Your task to perform on an android device: open sync settings in chrome Image 0: 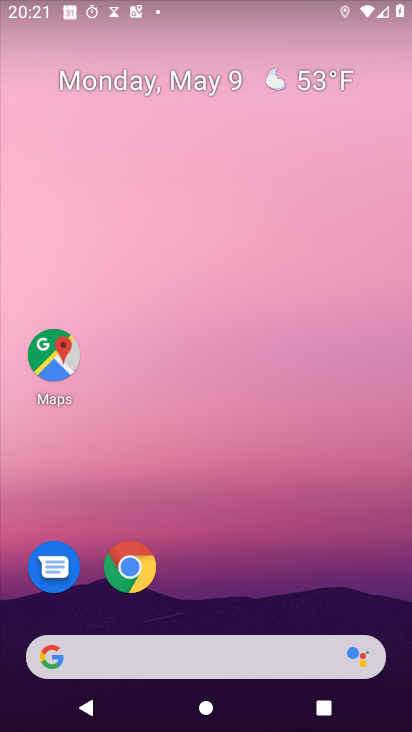
Step 0: click (120, 567)
Your task to perform on an android device: open sync settings in chrome Image 1: 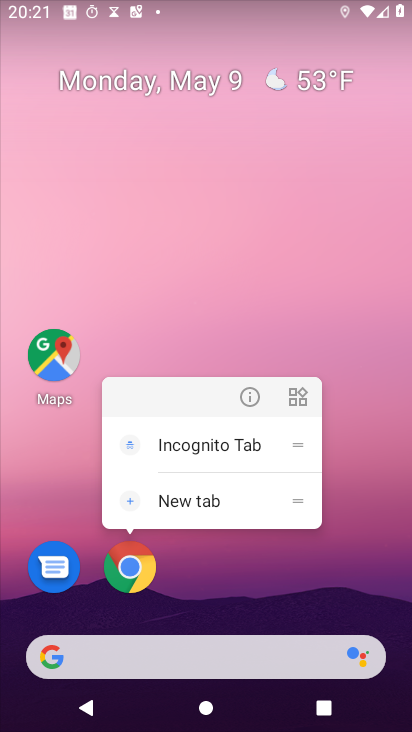
Step 1: click (120, 567)
Your task to perform on an android device: open sync settings in chrome Image 2: 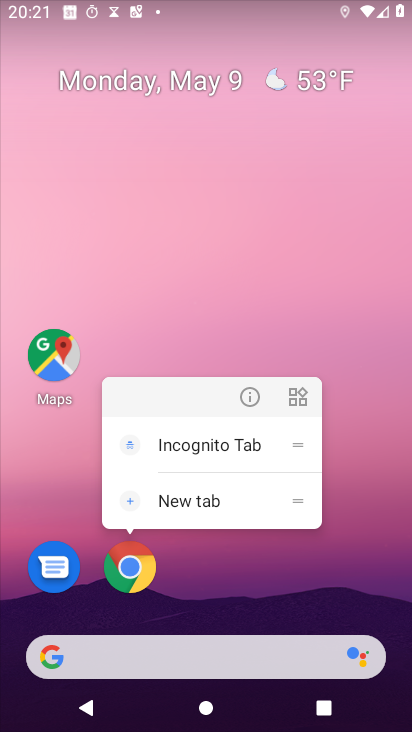
Step 2: click (131, 567)
Your task to perform on an android device: open sync settings in chrome Image 3: 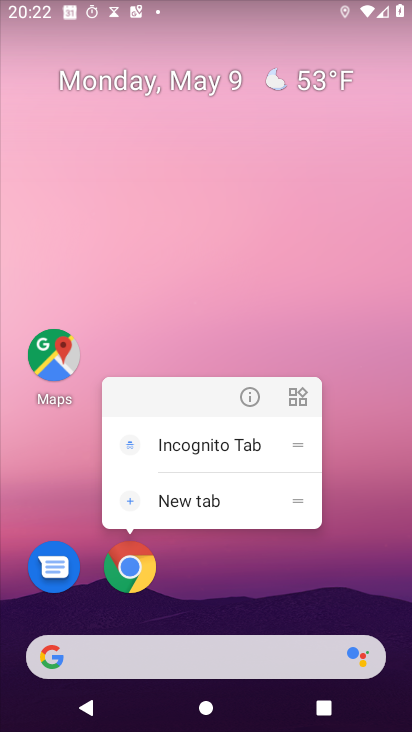
Step 3: click (135, 568)
Your task to perform on an android device: open sync settings in chrome Image 4: 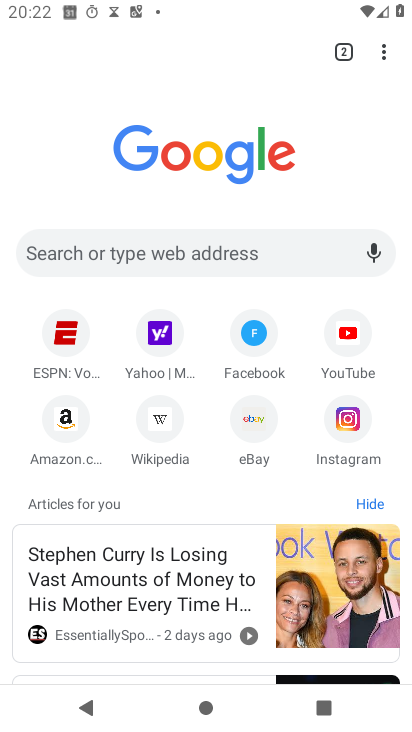
Step 4: click (383, 66)
Your task to perform on an android device: open sync settings in chrome Image 5: 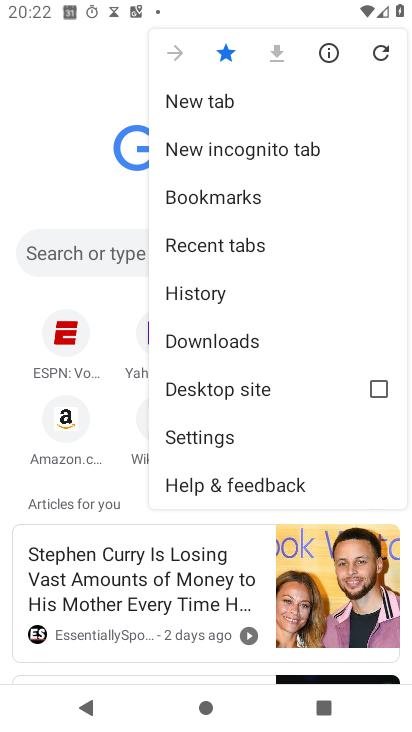
Step 5: click (273, 430)
Your task to perform on an android device: open sync settings in chrome Image 6: 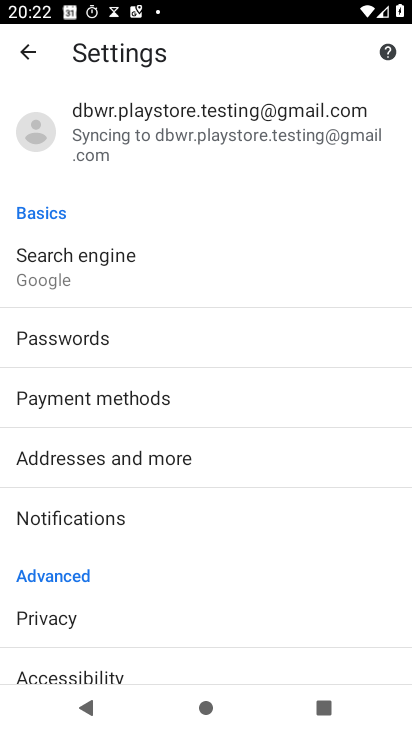
Step 6: click (179, 124)
Your task to perform on an android device: open sync settings in chrome Image 7: 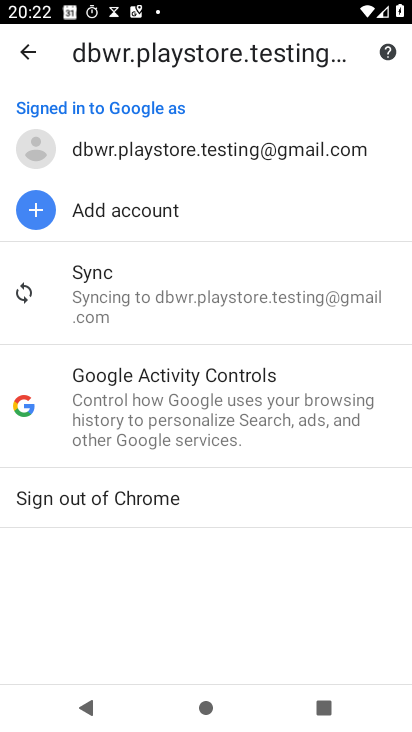
Step 7: click (139, 290)
Your task to perform on an android device: open sync settings in chrome Image 8: 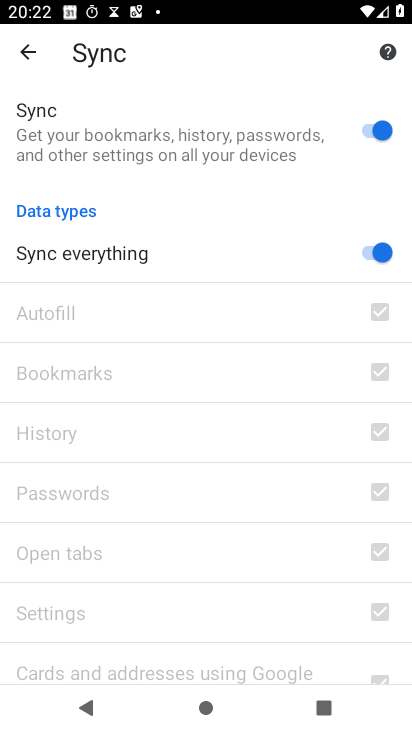
Step 8: task complete